Your task to perform on an android device: clear history in the chrome app Image 0: 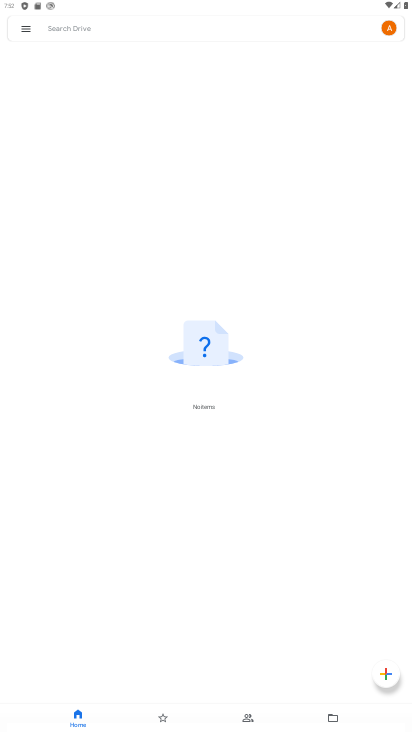
Step 0: press home button
Your task to perform on an android device: clear history in the chrome app Image 1: 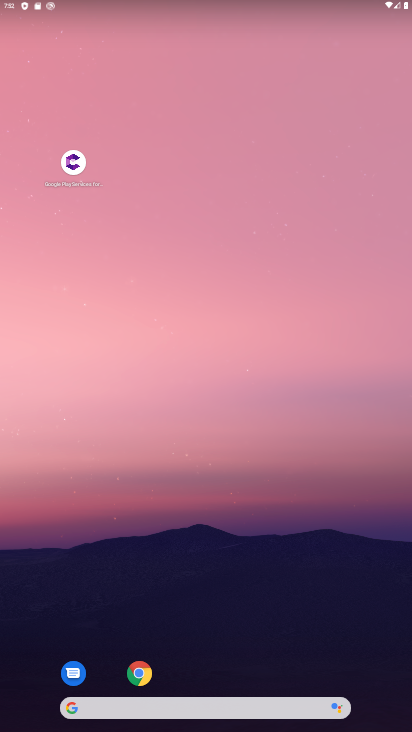
Step 1: click (134, 675)
Your task to perform on an android device: clear history in the chrome app Image 2: 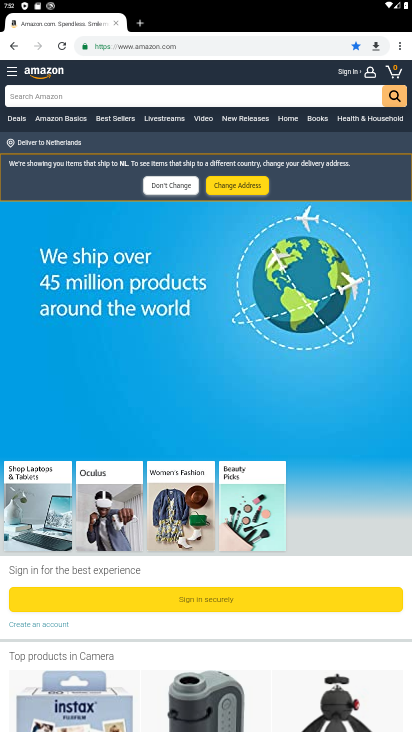
Step 2: click (405, 46)
Your task to perform on an android device: clear history in the chrome app Image 3: 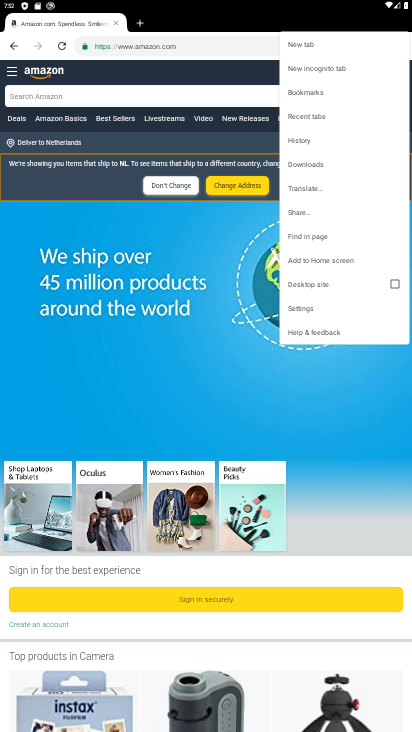
Step 3: click (299, 142)
Your task to perform on an android device: clear history in the chrome app Image 4: 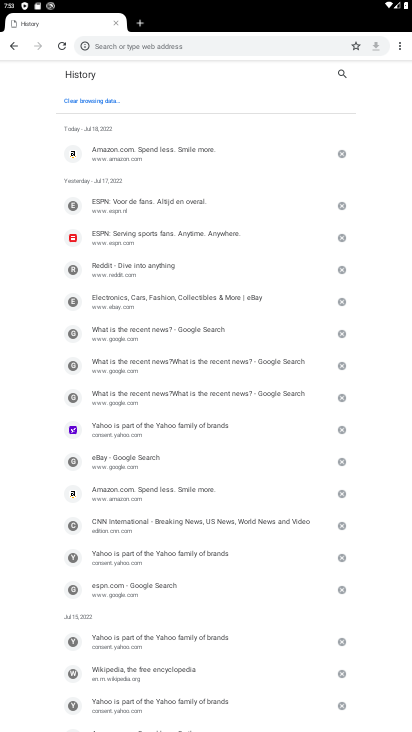
Step 4: click (77, 98)
Your task to perform on an android device: clear history in the chrome app Image 5: 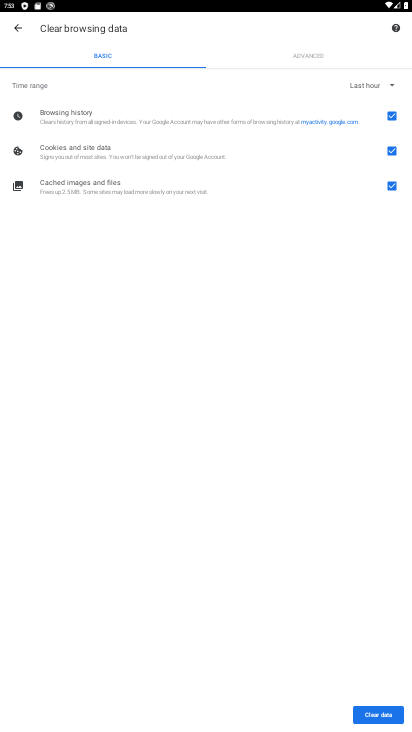
Step 5: click (372, 709)
Your task to perform on an android device: clear history in the chrome app Image 6: 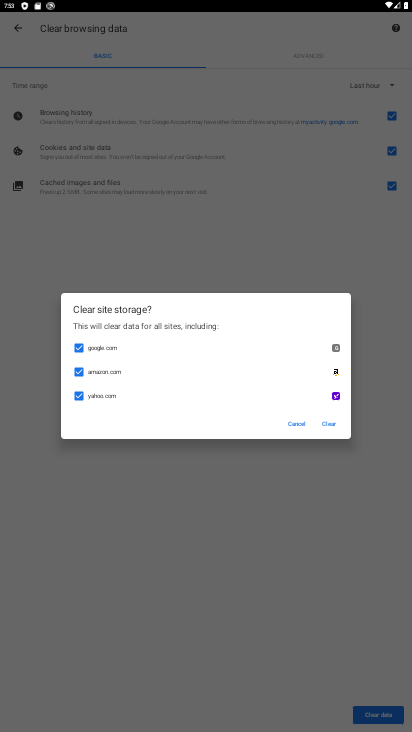
Step 6: click (324, 423)
Your task to perform on an android device: clear history in the chrome app Image 7: 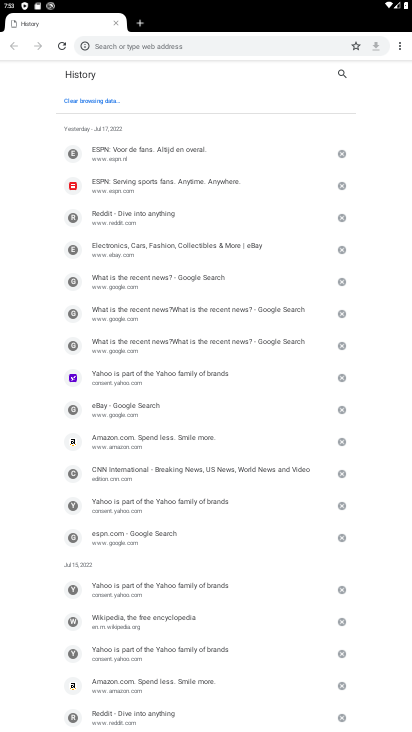
Step 7: task complete